Your task to perform on an android device: What's on my calendar tomorrow? Image 0: 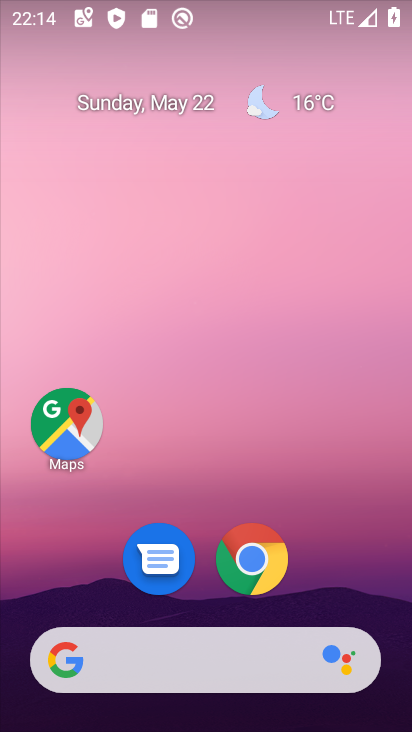
Step 0: drag from (276, 674) to (308, 336)
Your task to perform on an android device: What's on my calendar tomorrow? Image 1: 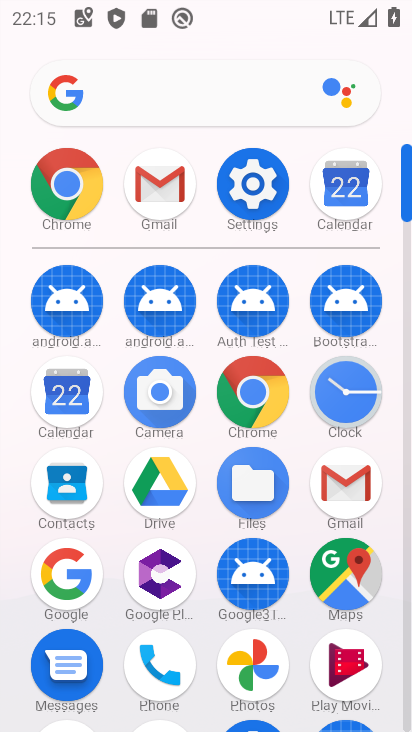
Step 1: click (66, 377)
Your task to perform on an android device: What's on my calendar tomorrow? Image 2: 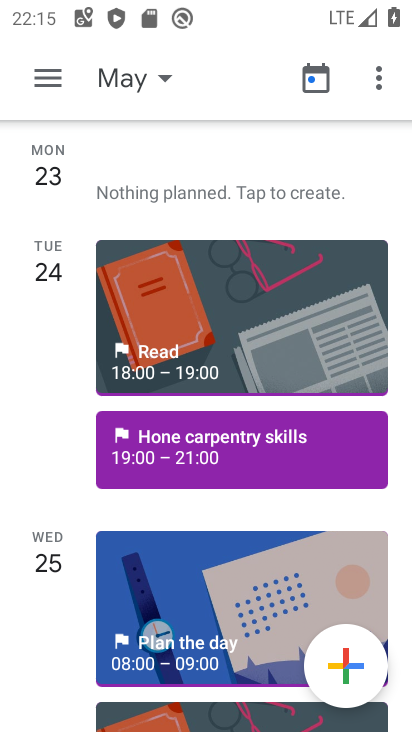
Step 2: click (52, 67)
Your task to perform on an android device: What's on my calendar tomorrow? Image 3: 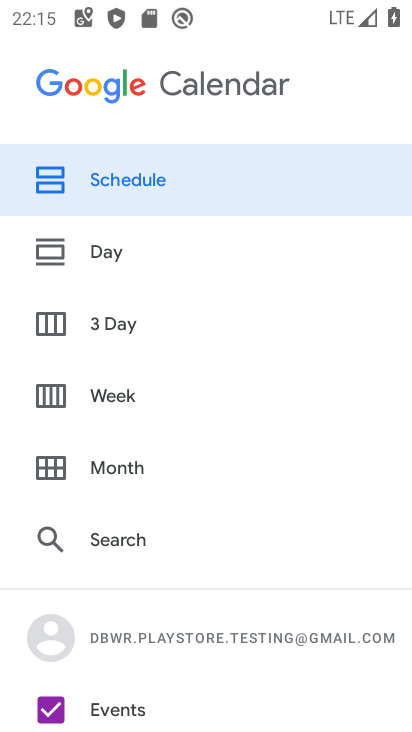
Step 3: click (115, 193)
Your task to perform on an android device: What's on my calendar tomorrow? Image 4: 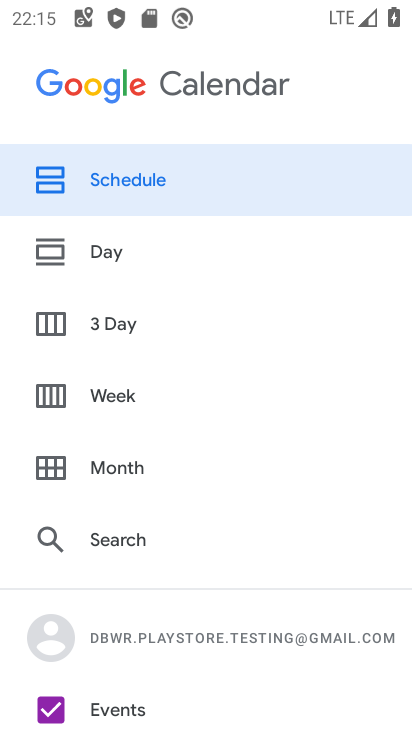
Step 4: click (116, 259)
Your task to perform on an android device: What's on my calendar tomorrow? Image 5: 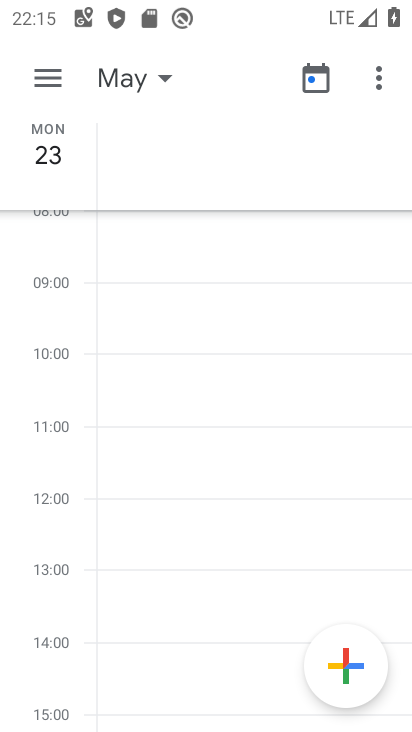
Step 5: click (61, 163)
Your task to perform on an android device: What's on my calendar tomorrow? Image 6: 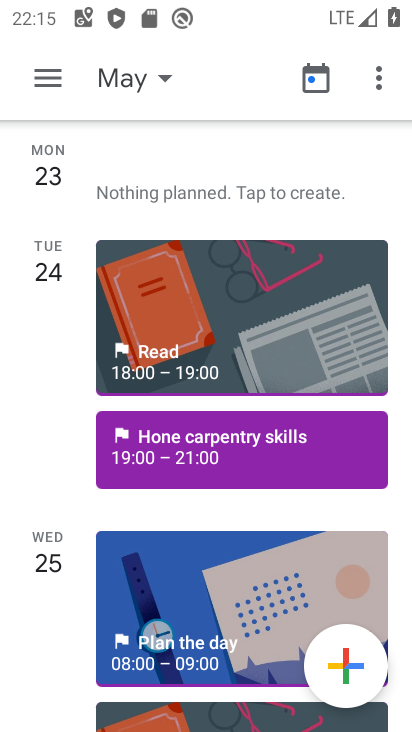
Step 6: click (40, 263)
Your task to perform on an android device: What's on my calendar tomorrow? Image 7: 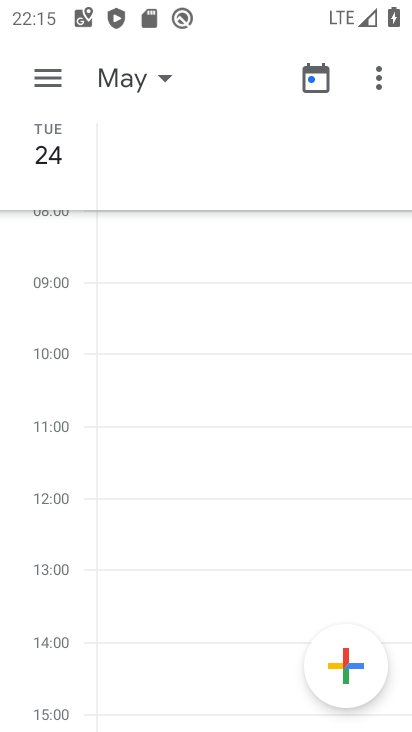
Step 7: task complete